Your task to perform on an android device: check google app version Image 0: 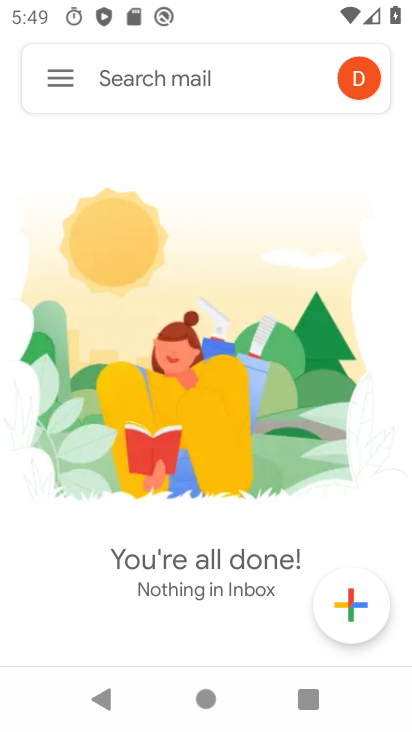
Step 0: press home button
Your task to perform on an android device: check google app version Image 1: 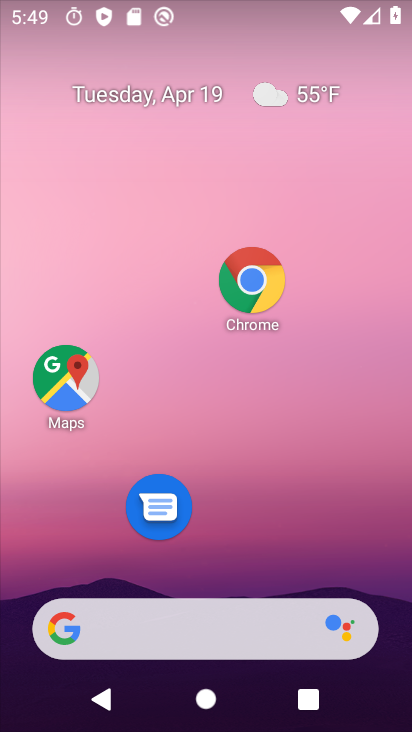
Step 1: drag from (164, 598) to (195, 210)
Your task to perform on an android device: check google app version Image 2: 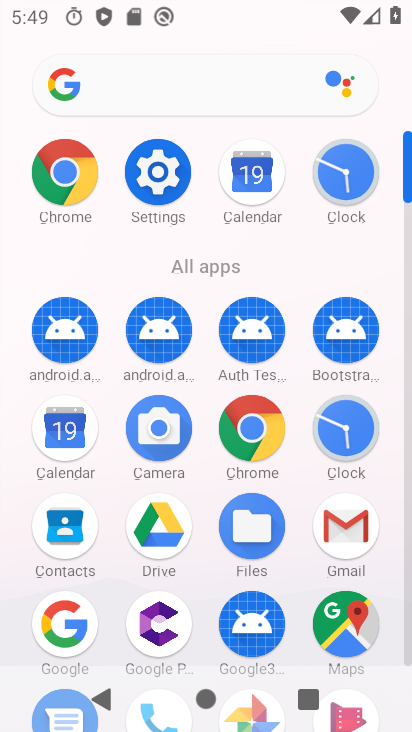
Step 2: click (62, 631)
Your task to perform on an android device: check google app version Image 3: 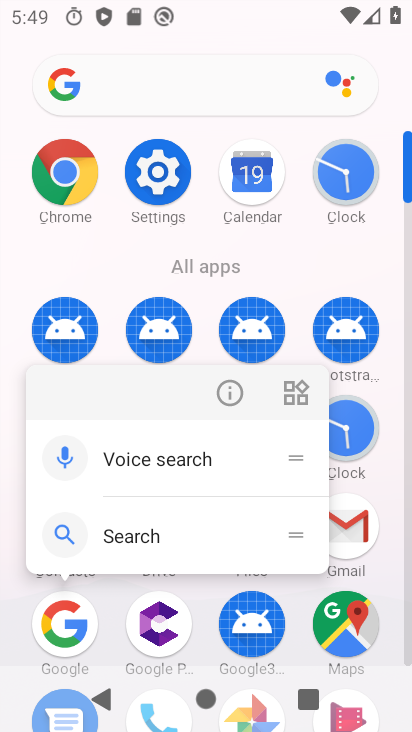
Step 3: click (226, 392)
Your task to perform on an android device: check google app version Image 4: 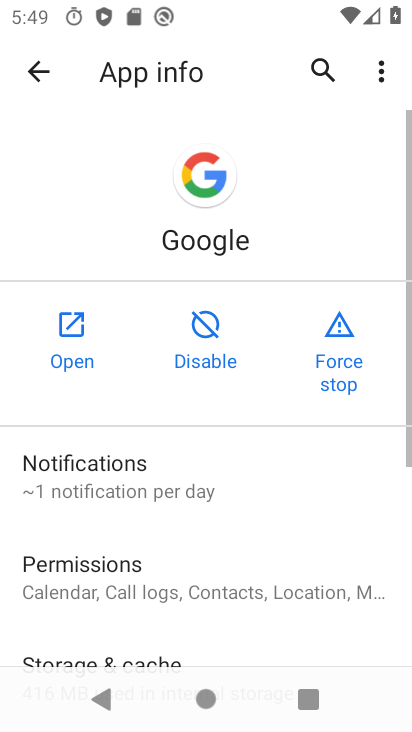
Step 4: drag from (285, 633) to (328, 200)
Your task to perform on an android device: check google app version Image 5: 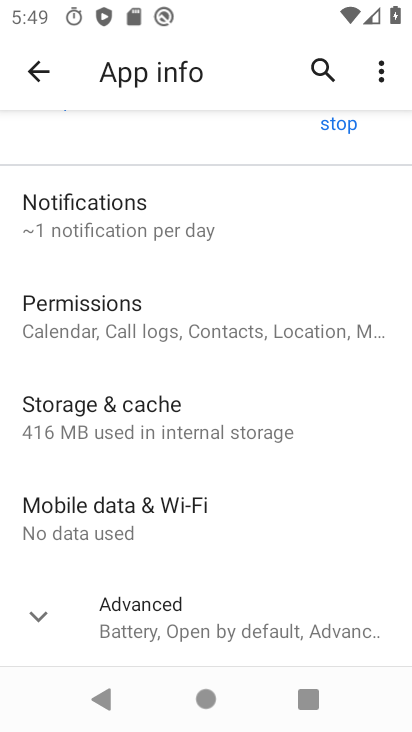
Step 5: click (180, 627)
Your task to perform on an android device: check google app version Image 6: 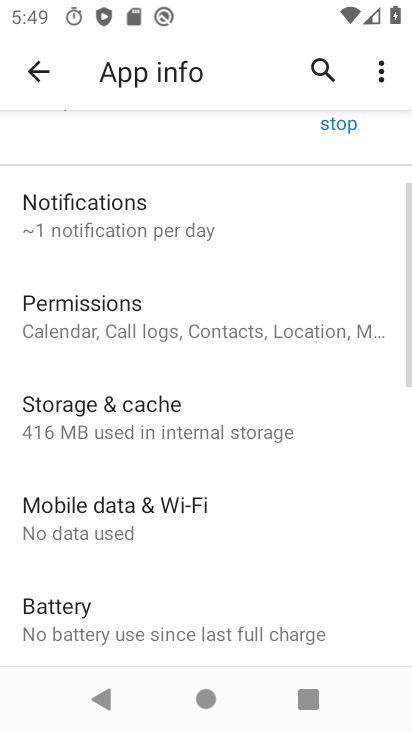
Step 6: task complete